Your task to perform on an android device: Go to privacy settings Image 0: 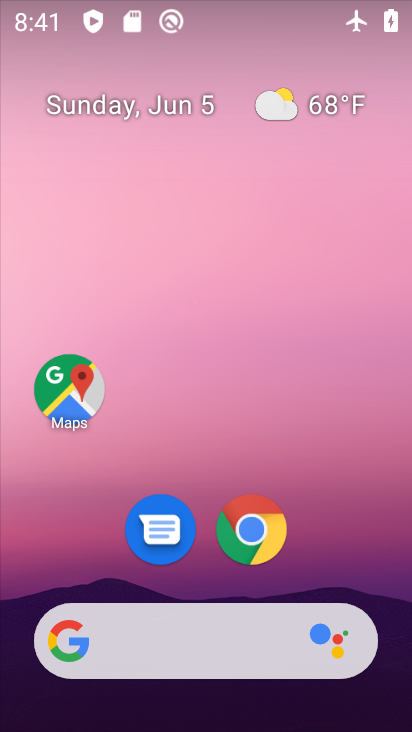
Step 0: click (369, 559)
Your task to perform on an android device: Go to privacy settings Image 1: 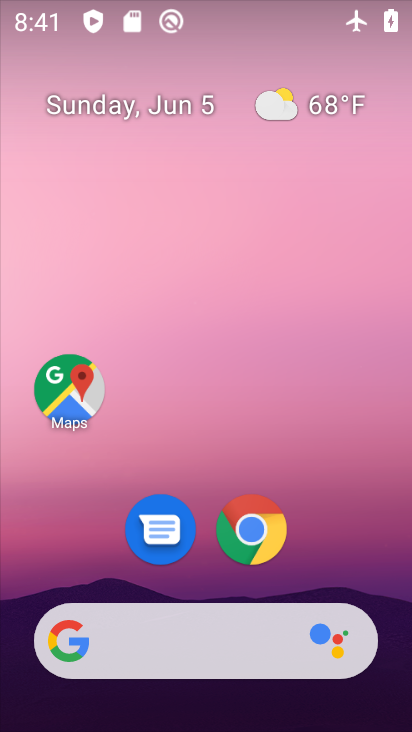
Step 1: drag from (107, 708) to (204, 36)
Your task to perform on an android device: Go to privacy settings Image 2: 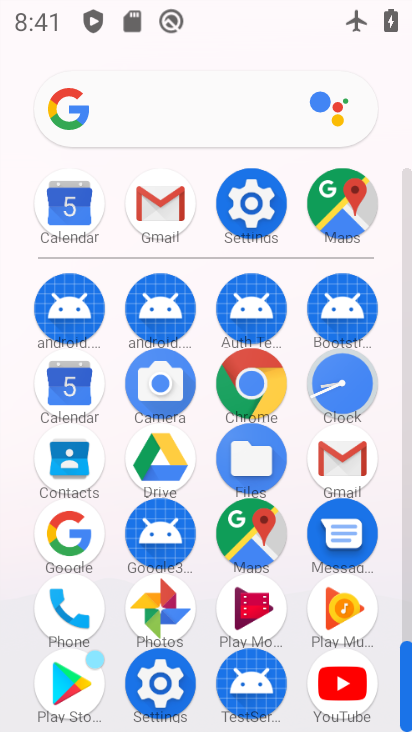
Step 2: click (241, 210)
Your task to perform on an android device: Go to privacy settings Image 3: 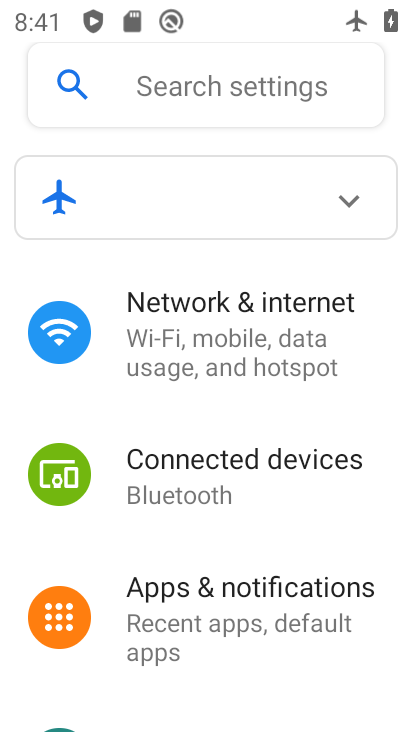
Step 3: drag from (104, 607) to (324, 16)
Your task to perform on an android device: Go to privacy settings Image 4: 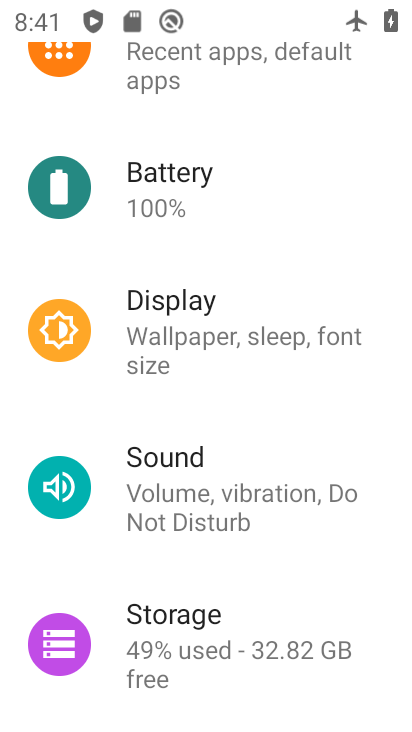
Step 4: drag from (191, 506) to (278, 137)
Your task to perform on an android device: Go to privacy settings Image 5: 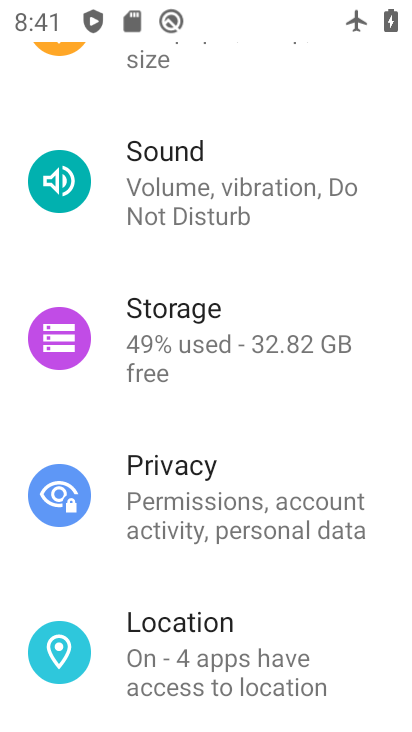
Step 5: click (144, 510)
Your task to perform on an android device: Go to privacy settings Image 6: 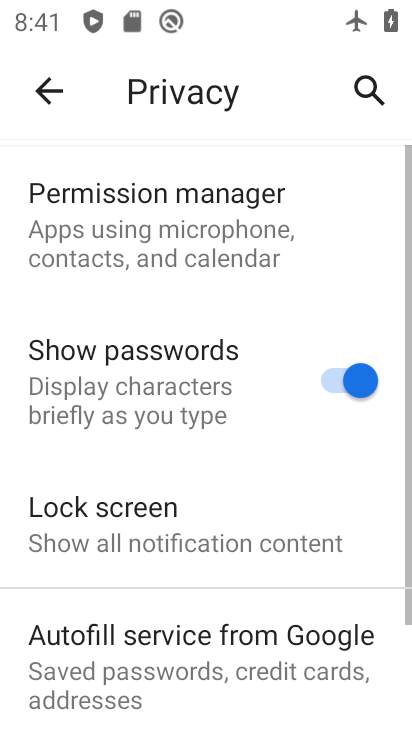
Step 6: task complete